Your task to perform on an android device: Do I have any events today? Image 0: 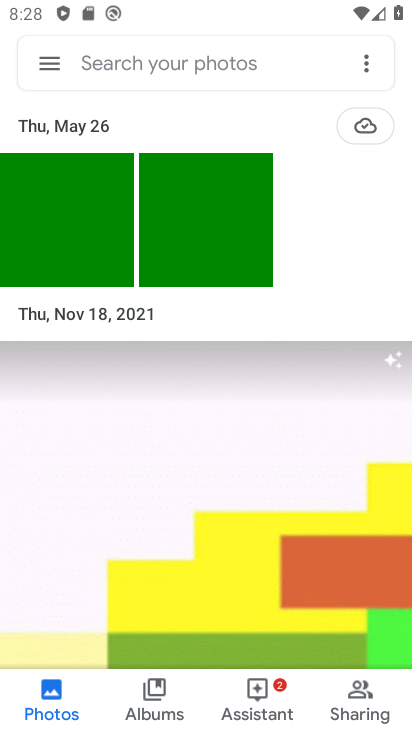
Step 0: press home button
Your task to perform on an android device: Do I have any events today? Image 1: 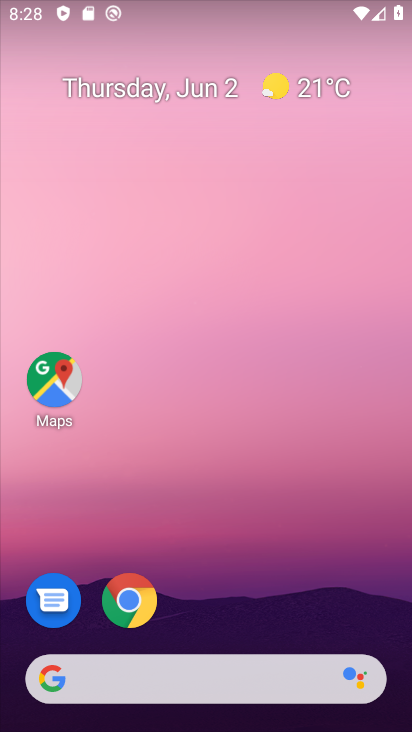
Step 1: drag from (219, 638) to (180, 171)
Your task to perform on an android device: Do I have any events today? Image 2: 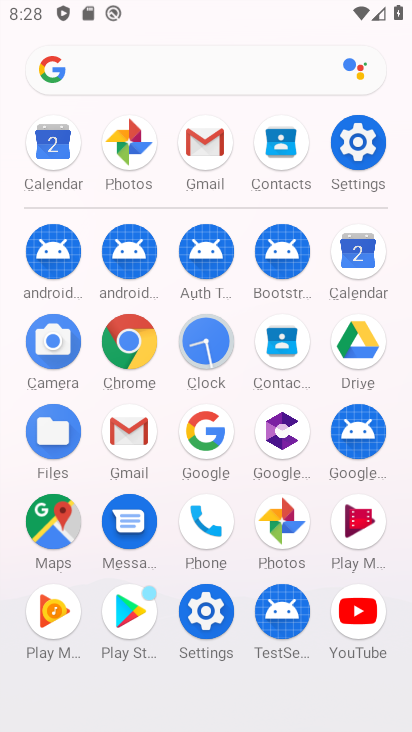
Step 2: click (338, 250)
Your task to perform on an android device: Do I have any events today? Image 3: 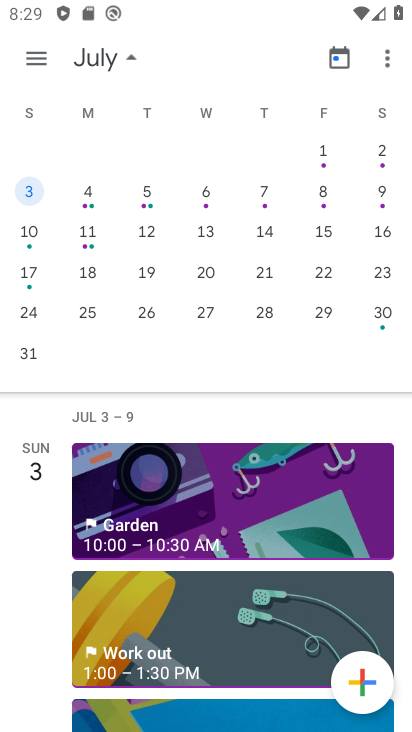
Step 3: drag from (46, 191) to (368, 191)
Your task to perform on an android device: Do I have any events today? Image 4: 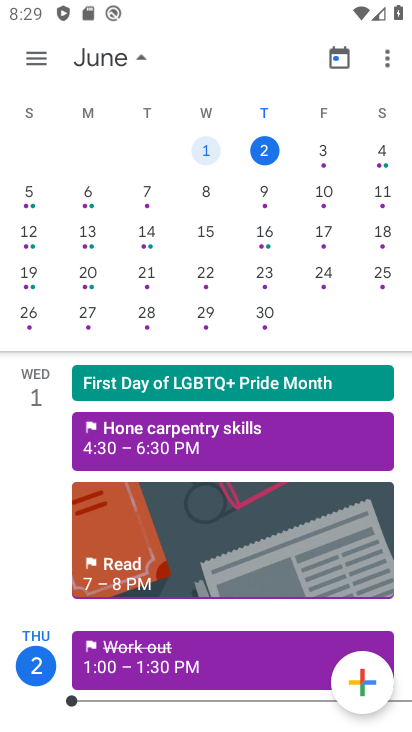
Step 4: click (264, 145)
Your task to perform on an android device: Do I have any events today? Image 5: 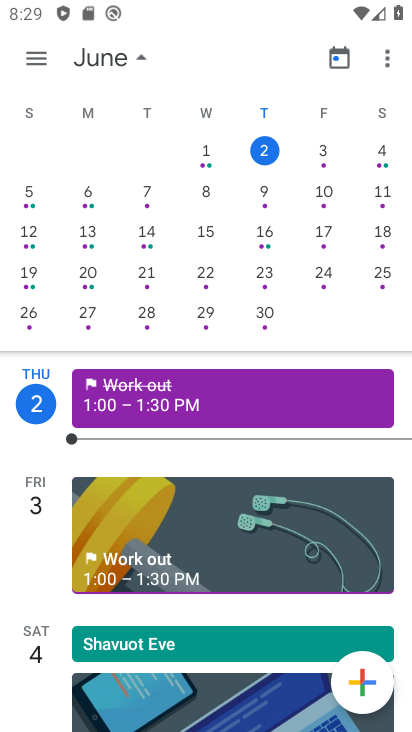
Step 5: task complete